Your task to perform on an android device: What's on my calendar today? Image 0: 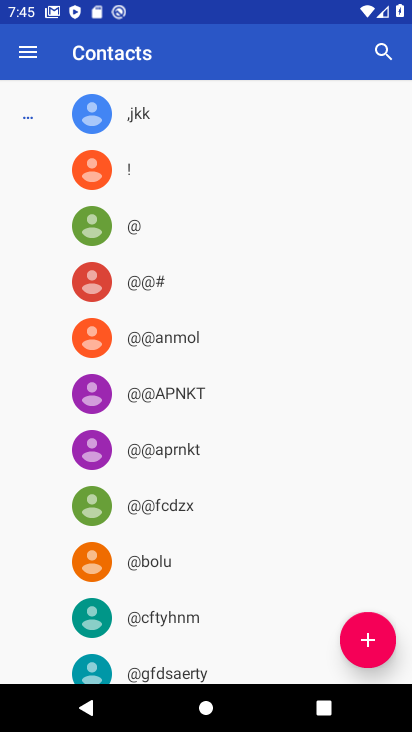
Step 0: press home button
Your task to perform on an android device: What's on my calendar today? Image 1: 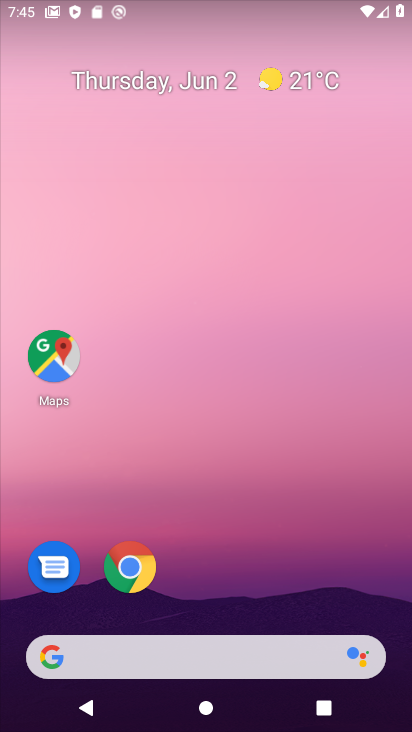
Step 1: drag from (400, 617) to (252, 110)
Your task to perform on an android device: What's on my calendar today? Image 2: 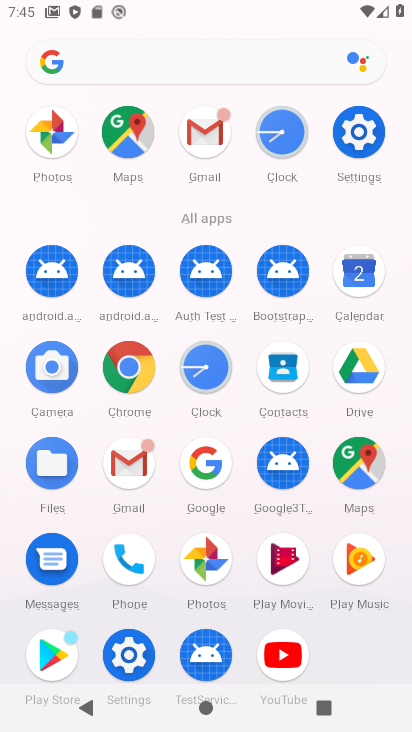
Step 2: click (356, 273)
Your task to perform on an android device: What's on my calendar today? Image 3: 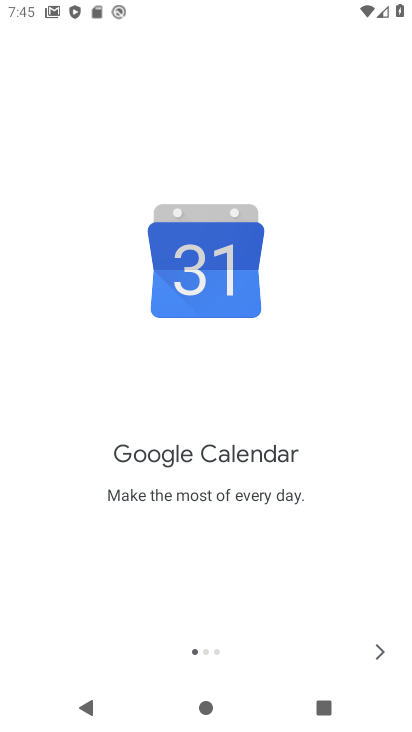
Step 3: click (381, 650)
Your task to perform on an android device: What's on my calendar today? Image 4: 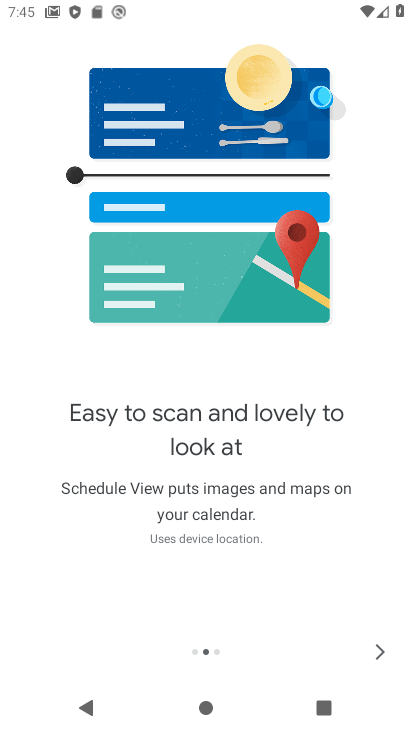
Step 4: click (381, 650)
Your task to perform on an android device: What's on my calendar today? Image 5: 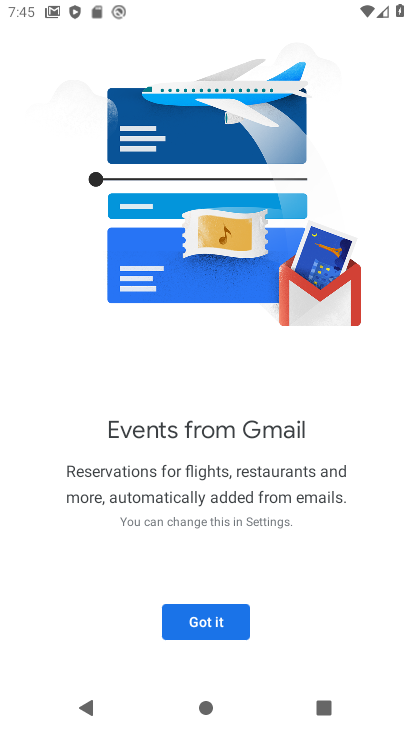
Step 5: click (205, 620)
Your task to perform on an android device: What's on my calendar today? Image 6: 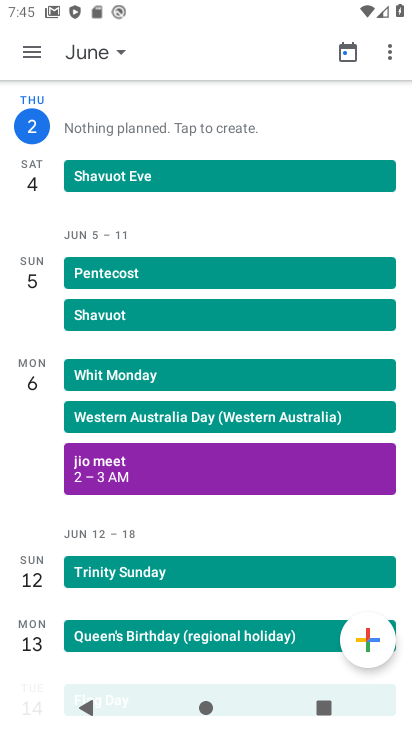
Step 6: click (33, 51)
Your task to perform on an android device: What's on my calendar today? Image 7: 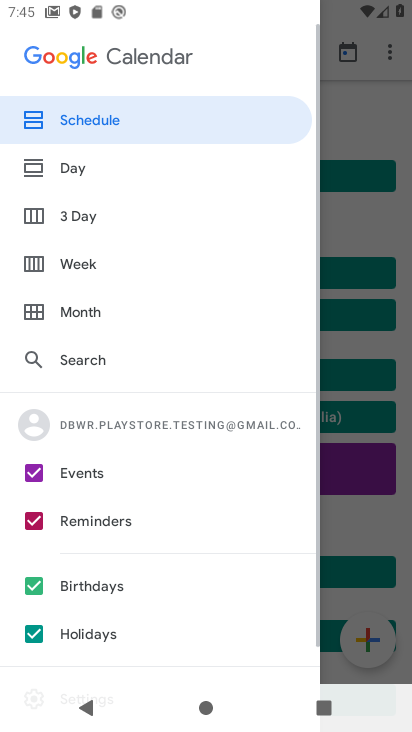
Step 7: click (77, 168)
Your task to perform on an android device: What's on my calendar today? Image 8: 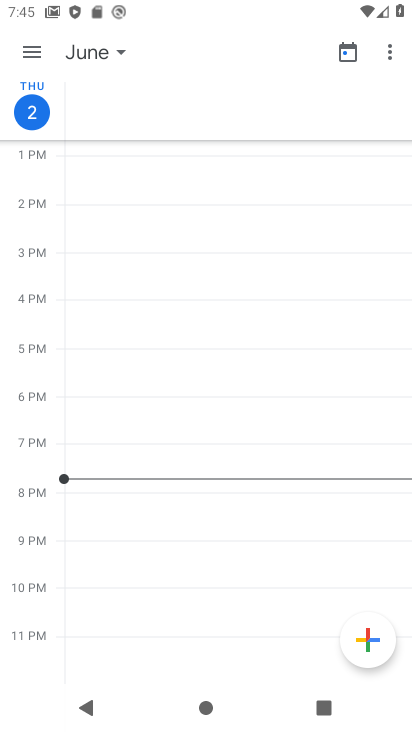
Step 8: task complete